Your task to perform on an android device: Open the calendar app, open the side menu, and click the "Day" option Image 0: 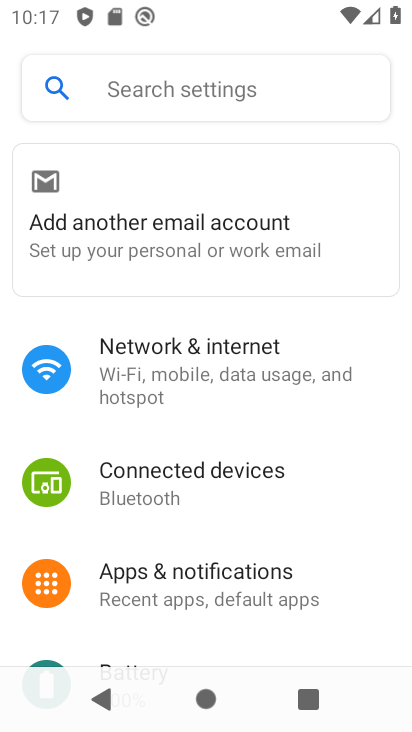
Step 0: press home button
Your task to perform on an android device: Open the calendar app, open the side menu, and click the "Day" option Image 1: 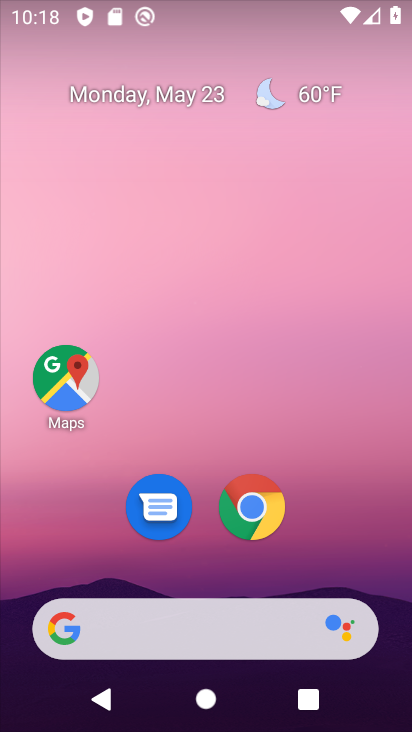
Step 1: drag from (319, 573) to (276, 8)
Your task to perform on an android device: Open the calendar app, open the side menu, and click the "Day" option Image 2: 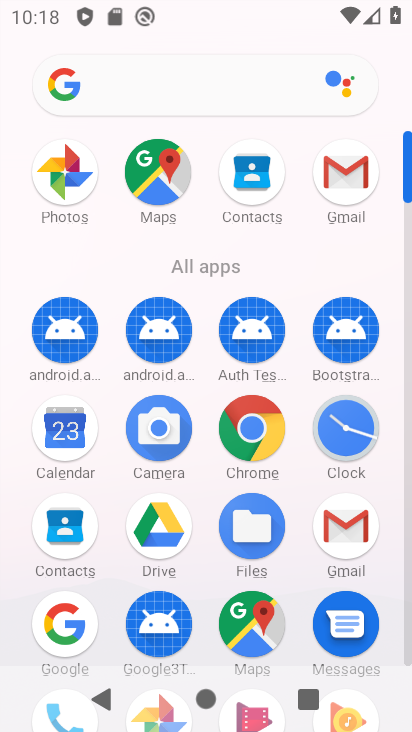
Step 2: click (69, 431)
Your task to perform on an android device: Open the calendar app, open the side menu, and click the "Day" option Image 3: 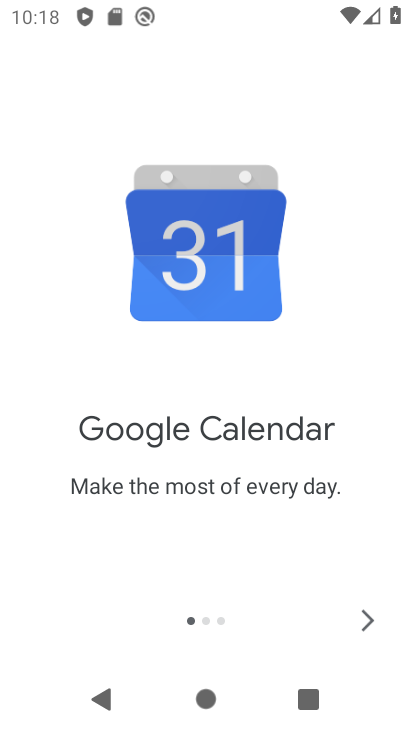
Step 3: click (372, 619)
Your task to perform on an android device: Open the calendar app, open the side menu, and click the "Day" option Image 4: 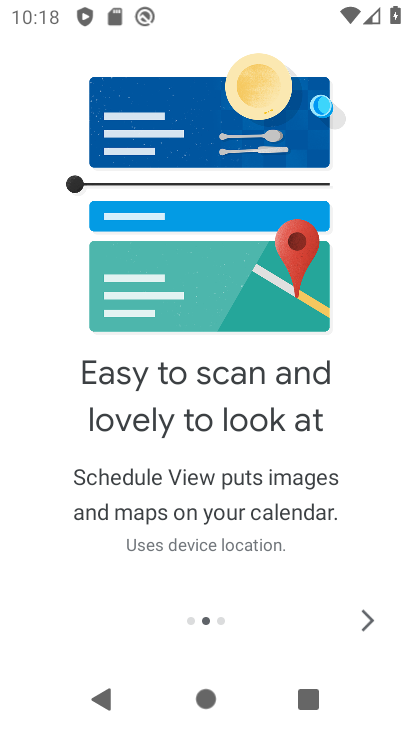
Step 4: click (373, 620)
Your task to perform on an android device: Open the calendar app, open the side menu, and click the "Day" option Image 5: 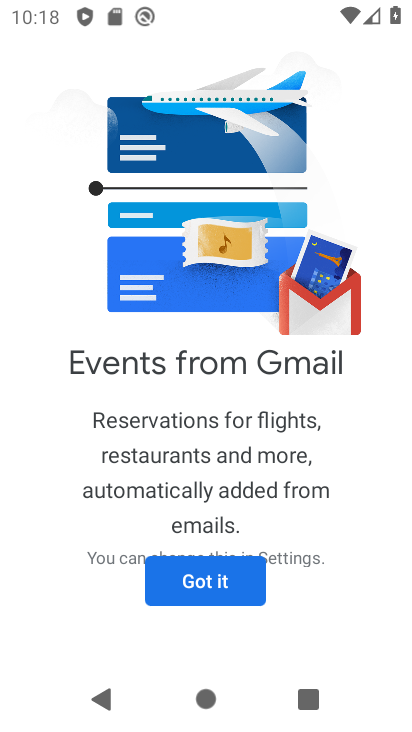
Step 5: click (227, 583)
Your task to perform on an android device: Open the calendar app, open the side menu, and click the "Day" option Image 6: 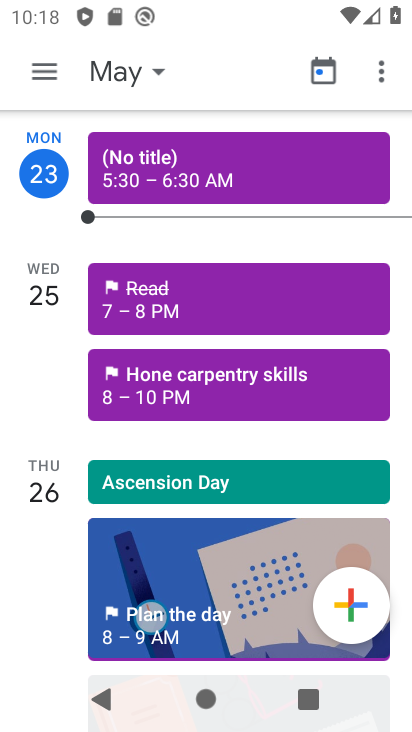
Step 6: click (45, 70)
Your task to perform on an android device: Open the calendar app, open the side menu, and click the "Day" option Image 7: 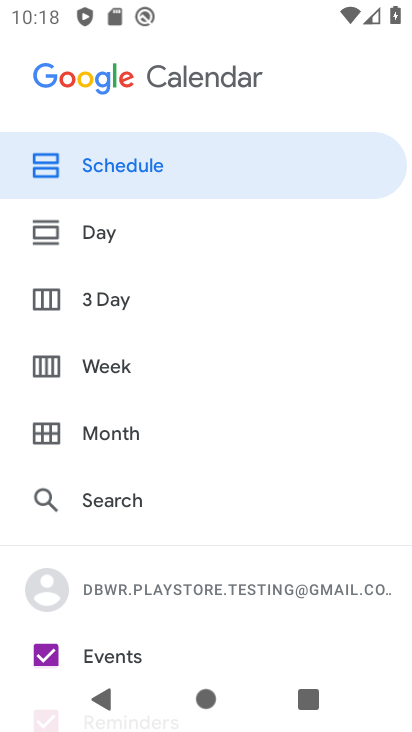
Step 7: click (104, 239)
Your task to perform on an android device: Open the calendar app, open the side menu, and click the "Day" option Image 8: 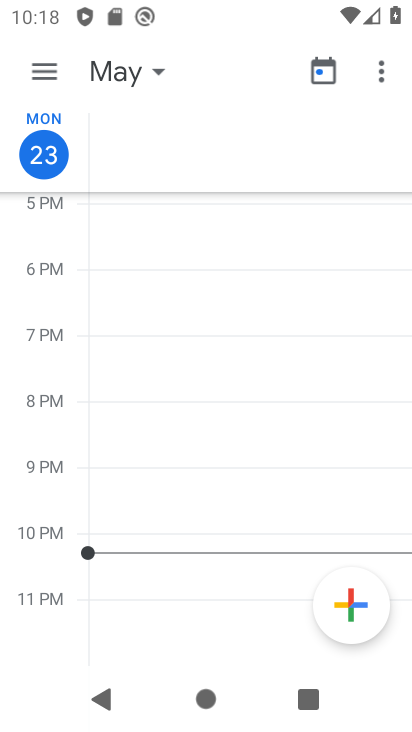
Step 8: task complete